Your task to perform on an android device: Open the web browser Image 0: 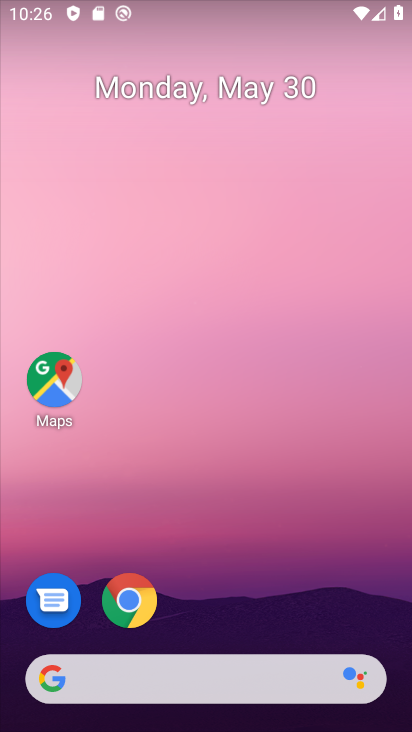
Step 0: click (131, 591)
Your task to perform on an android device: Open the web browser Image 1: 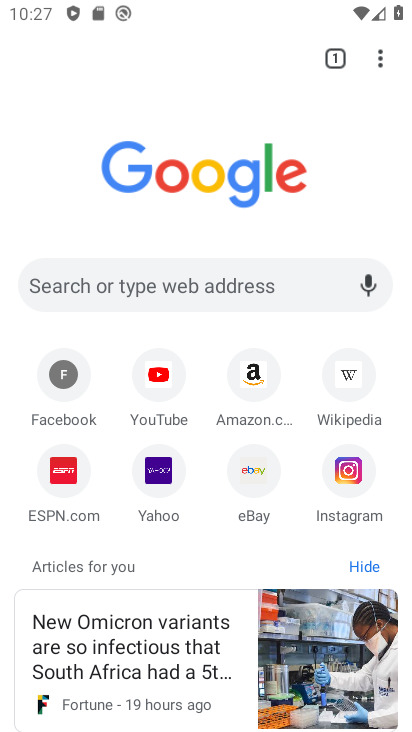
Step 1: click (238, 287)
Your task to perform on an android device: Open the web browser Image 2: 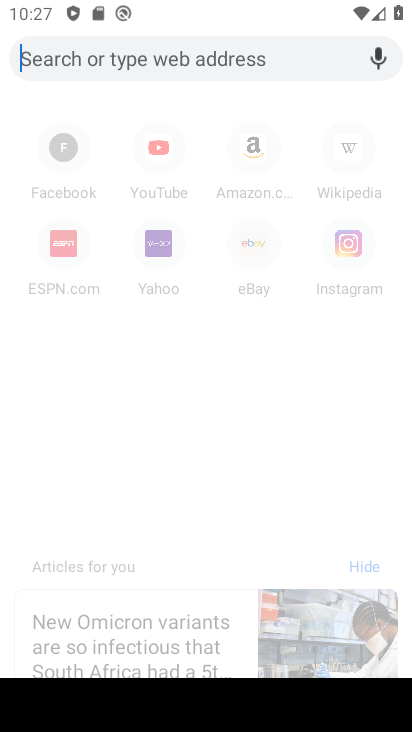
Step 2: type " web browser"
Your task to perform on an android device: Open the web browser Image 3: 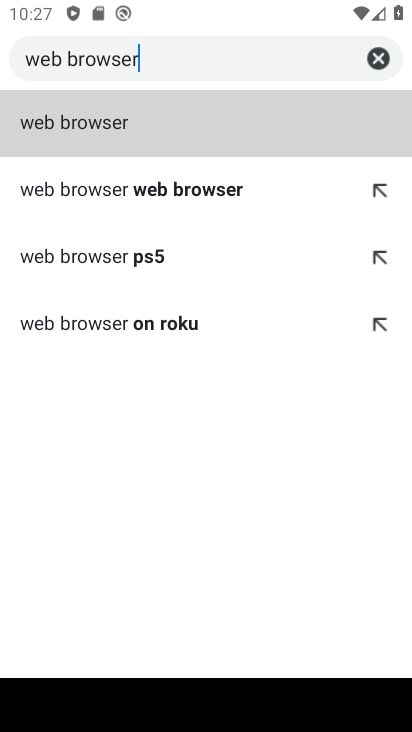
Step 3: click (94, 110)
Your task to perform on an android device: Open the web browser Image 4: 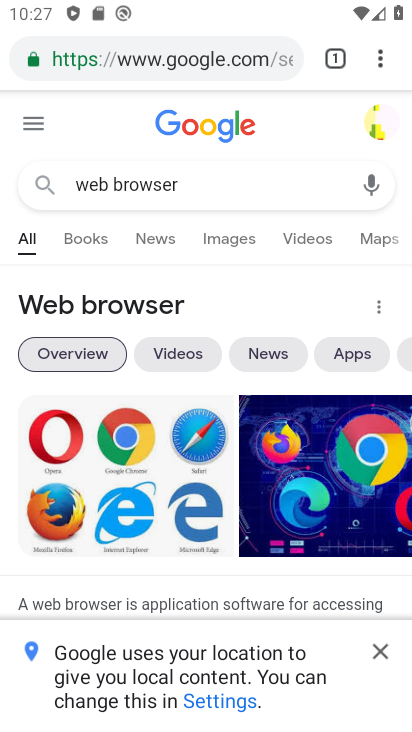
Step 4: task complete